Your task to perform on an android device: open the mobile data screen to see how much data has been used Image 0: 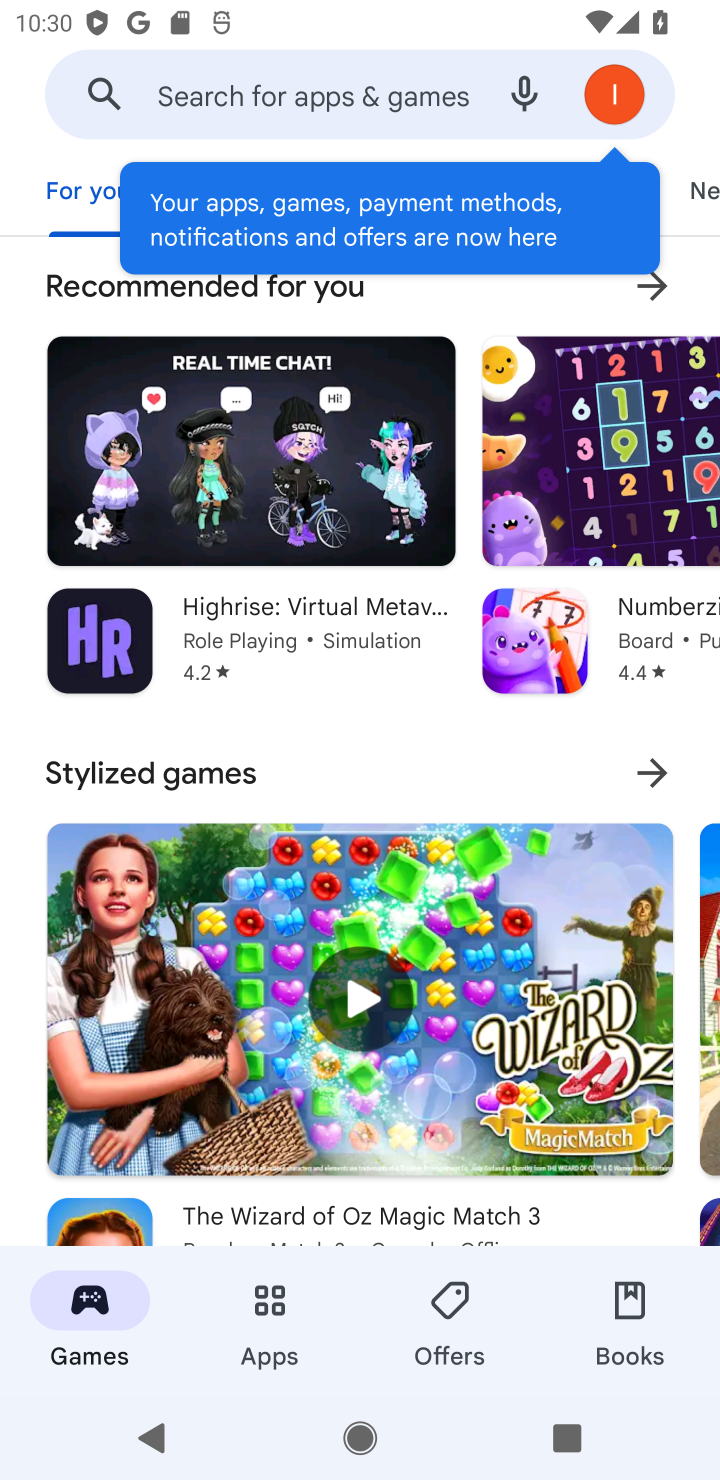
Step 0: press home button
Your task to perform on an android device: open the mobile data screen to see how much data has been used Image 1: 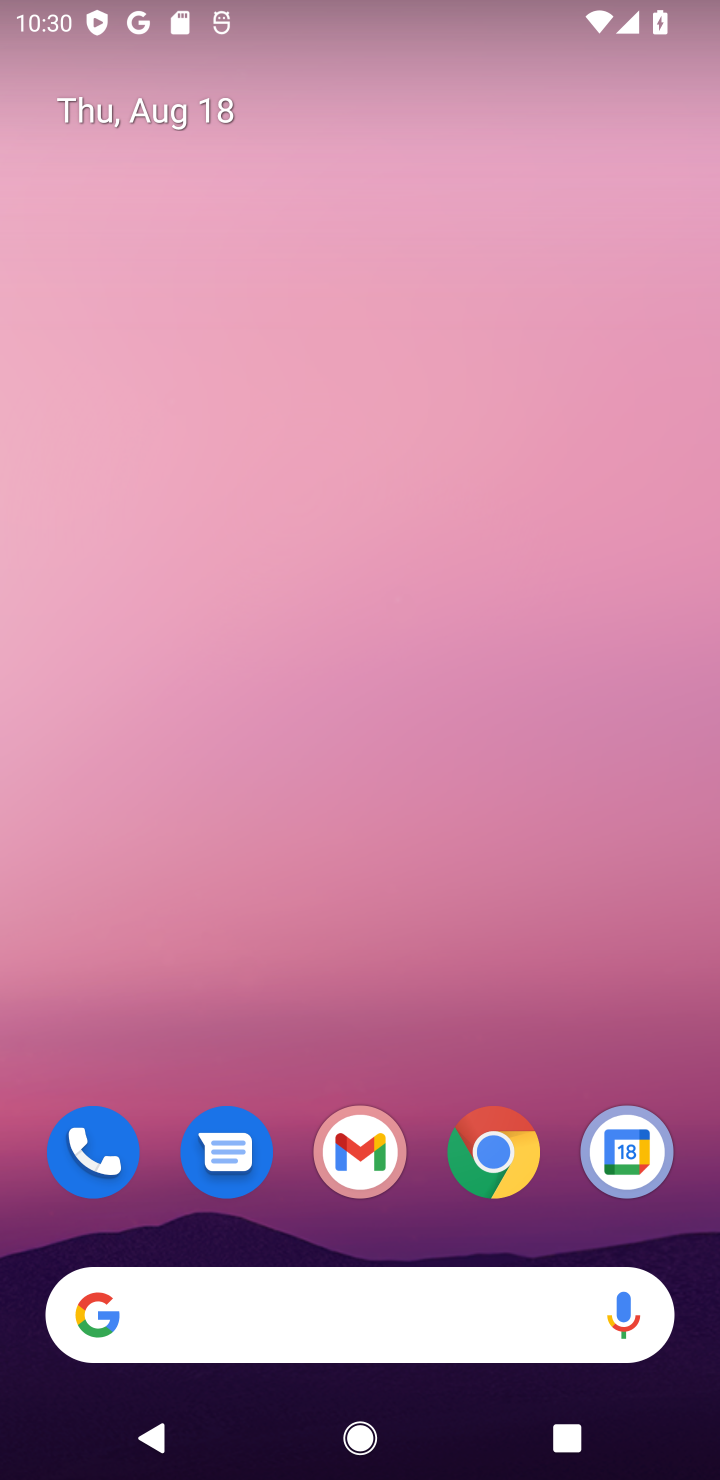
Step 1: drag from (516, 1050) to (564, 0)
Your task to perform on an android device: open the mobile data screen to see how much data has been used Image 2: 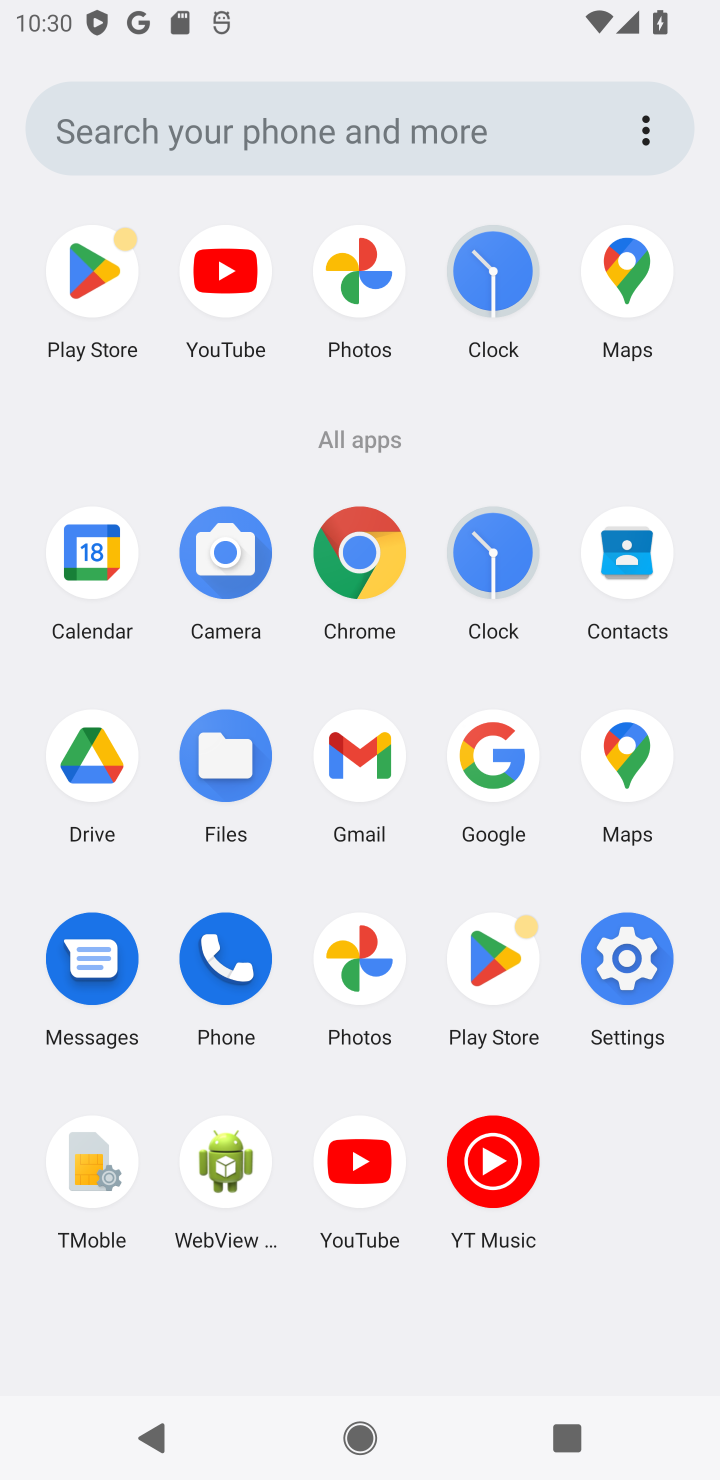
Step 2: click (634, 957)
Your task to perform on an android device: open the mobile data screen to see how much data has been used Image 3: 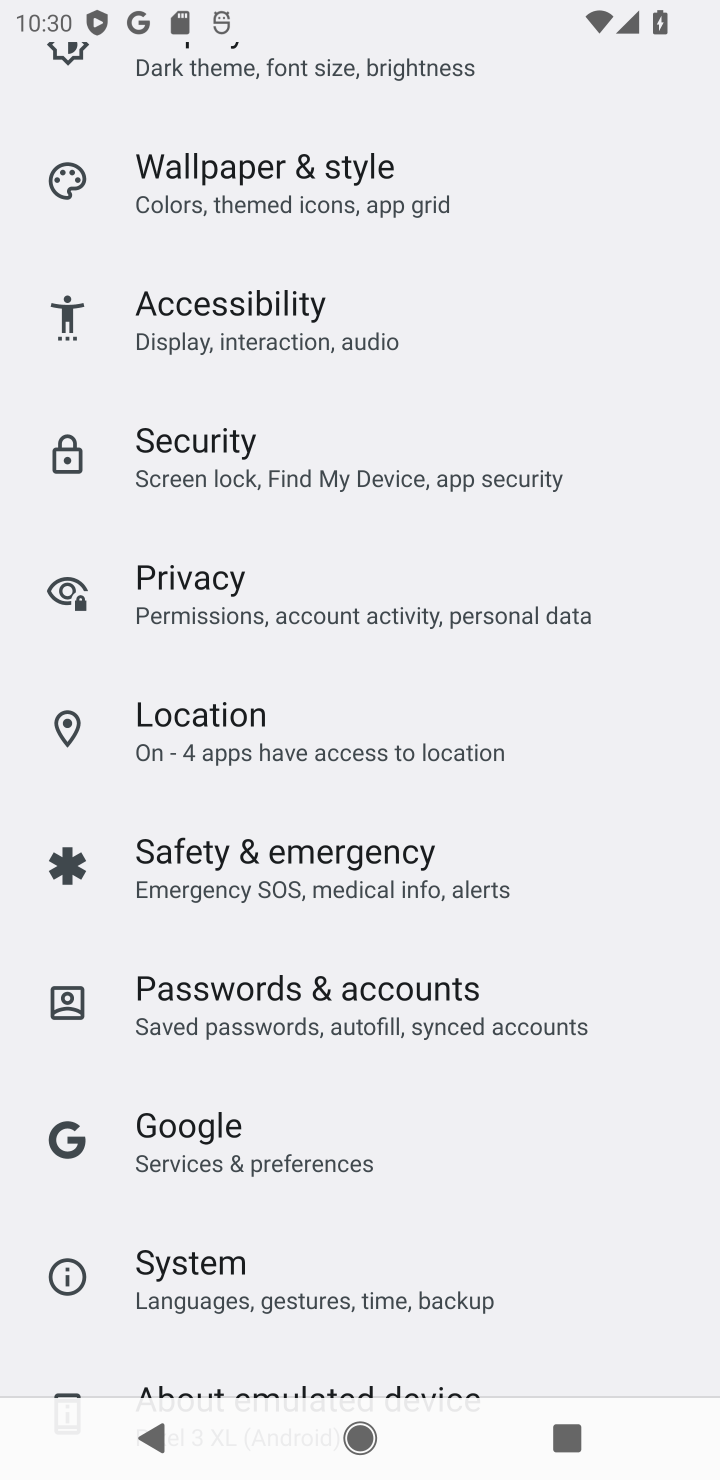
Step 3: drag from (384, 500) to (369, 1335)
Your task to perform on an android device: open the mobile data screen to see how much data has been used Image 4: 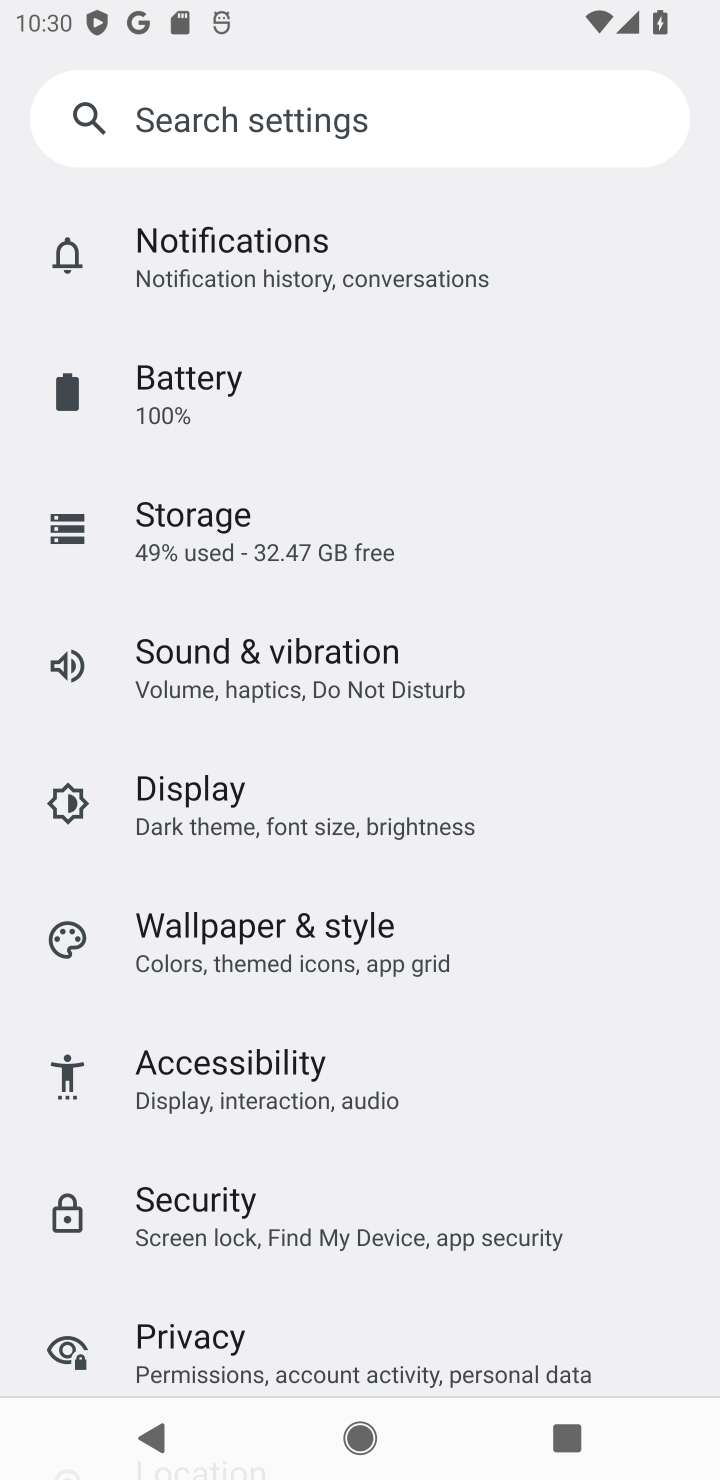
Step 4: drag from (381, 693) to (349, 1256)
Your task to perform on an android device: open the mobile data screen to see how much data has been used Image 5: 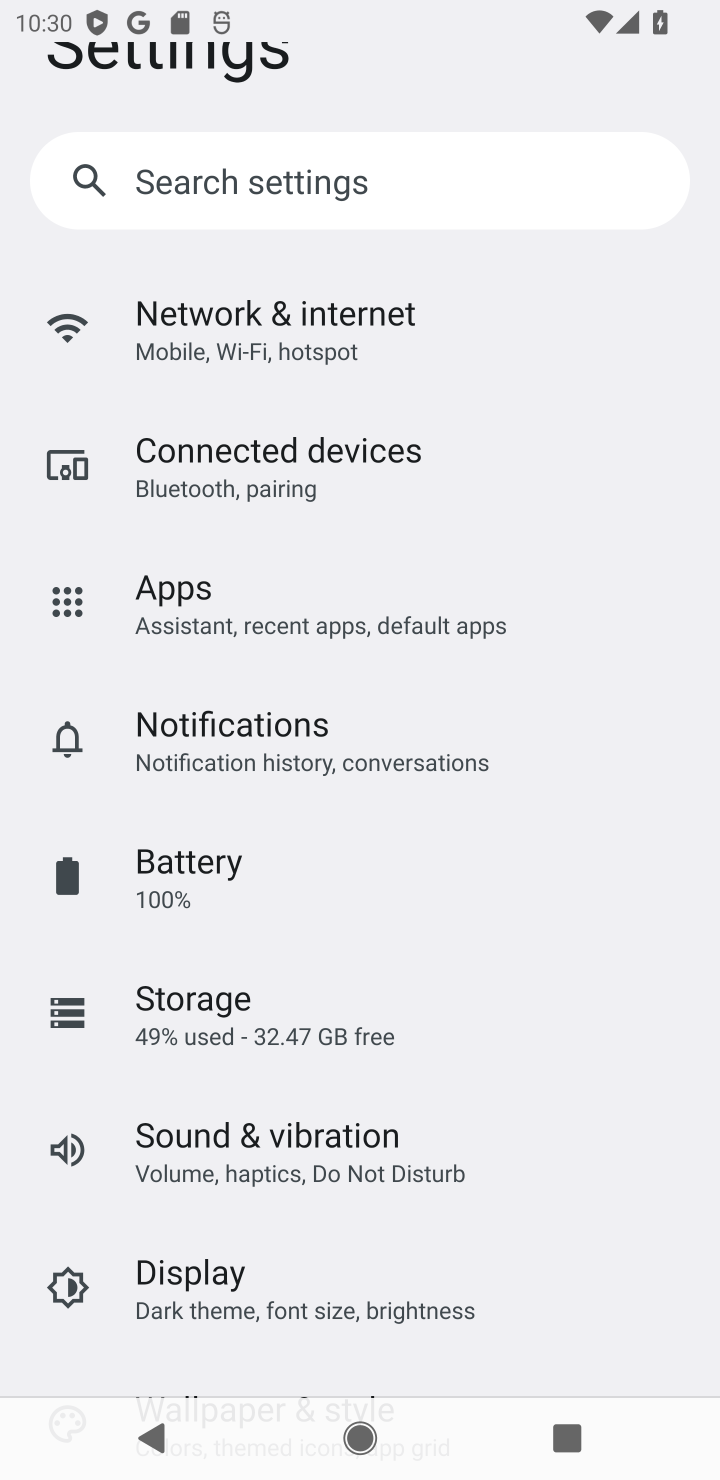
Step 5: click (362, 334)
Your task to perform on an android device: open the mobile data screen to see how much data has been used Image 6: 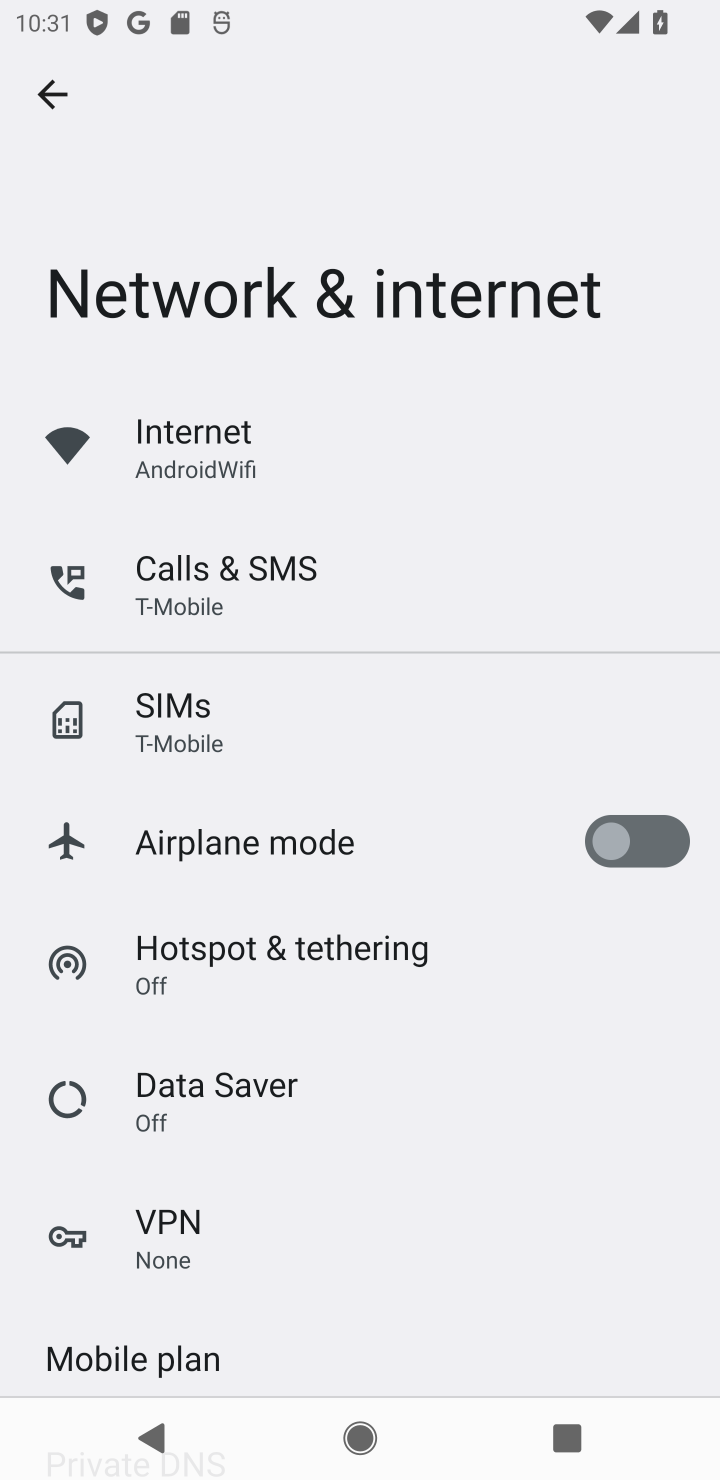
Step 6: click (183, 711)
Your task to perform on an android device: open the mobile data screen to see how much data has been used Image 7: 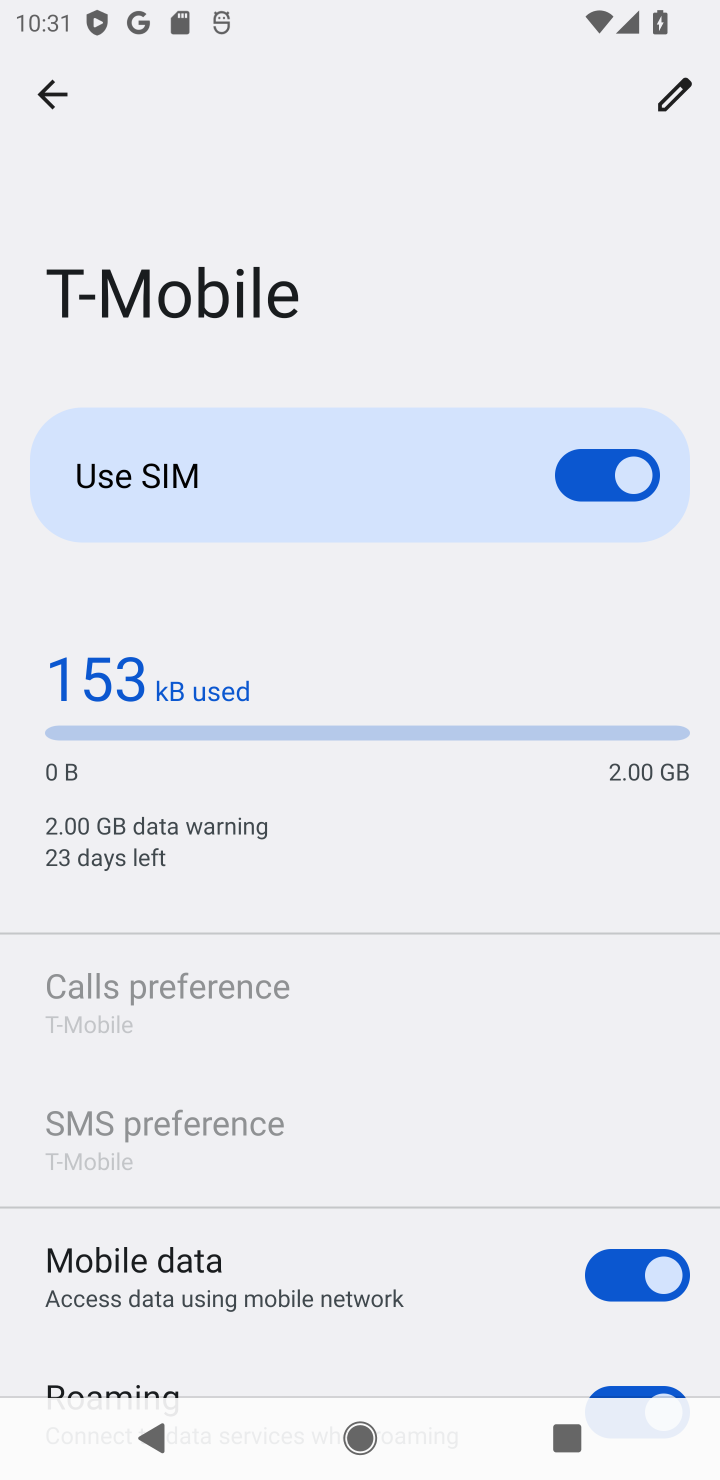
Step 7: task complete